Your task to perform on an android device: Turn off the flashlight Image 0: 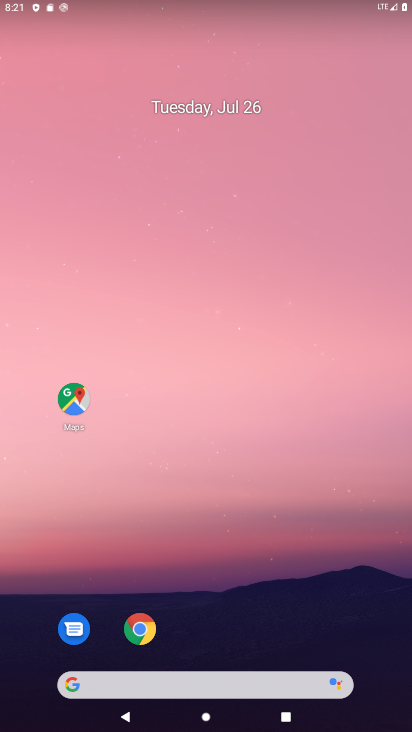
Step 0: drag from (213, 642) to (172, 58)
Your task to perform on an android device: Turn off the flashlight Image 1: 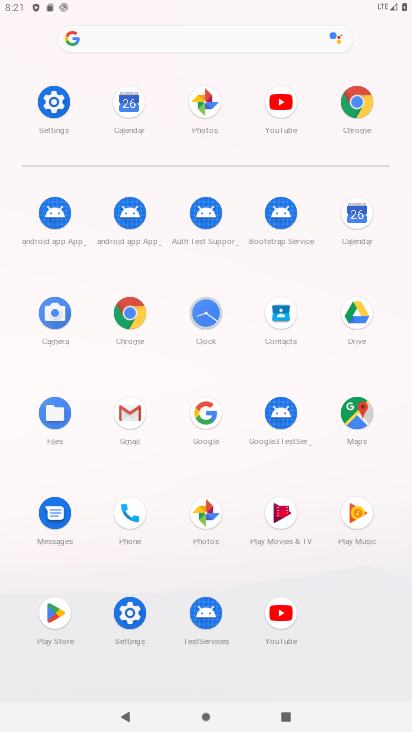
Step 1: click (129, 633)
Your task to perform on an android device: Turn off the flashlight Image 2: 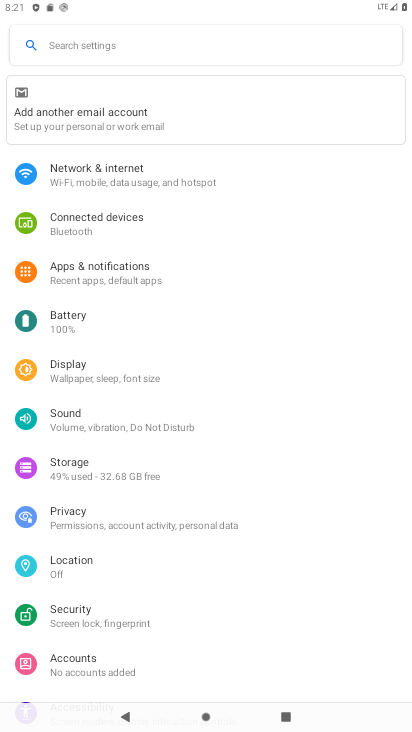
Step 2: task complete